Your task to perform on an android device: What's the weather? Image 0: 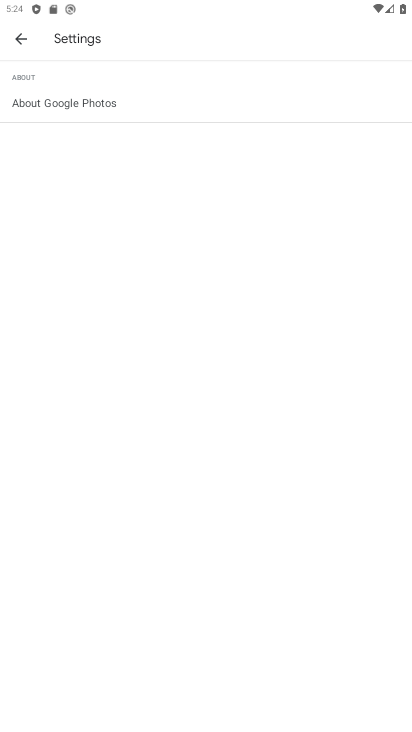
Step 0: press home button
Your task to perform on an android device: What's the weather? Image 1: 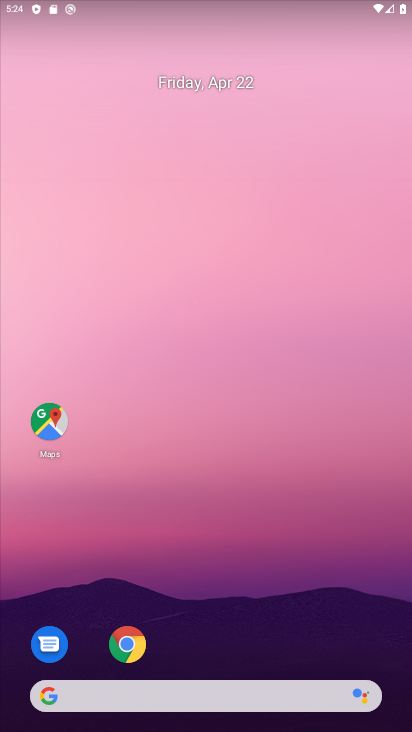
Step 1: drag from (246, 615) to (190, 221)
Your task to perform on an android device: What's the weather? Image 2: 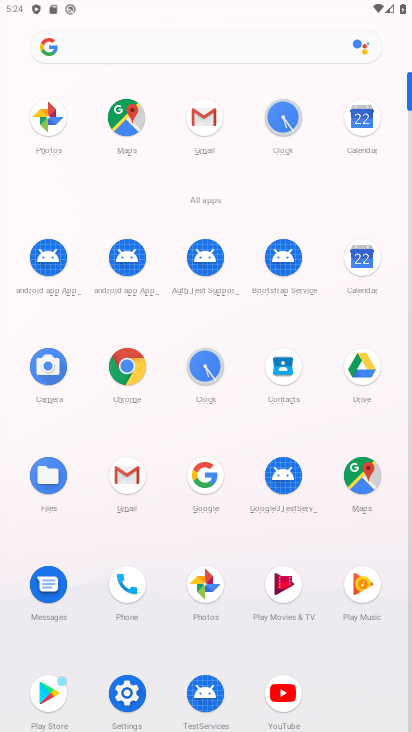
Step 2: click (210, 494)
Your task to perform on an android device: What's the weather? Image 3: 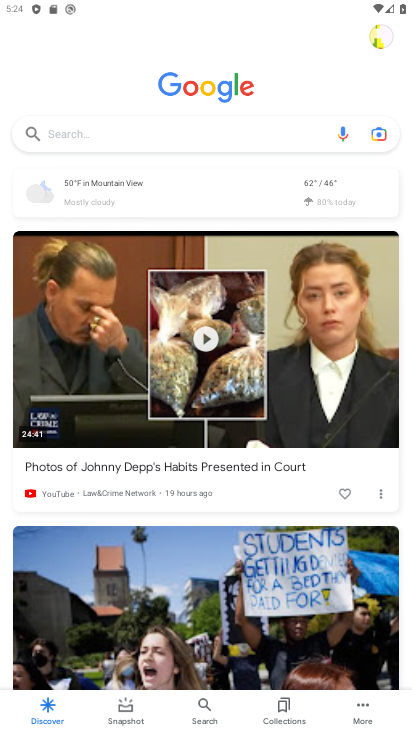
Step 3: click (318, 188)
Your task to perform on an android device: What's the weather? Image 4: 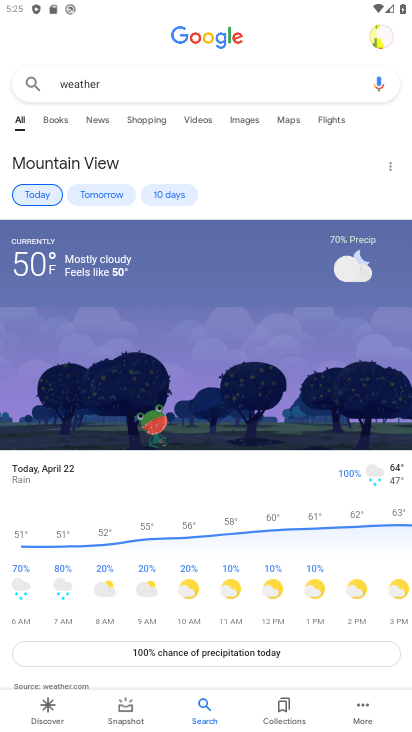
Step 4: task complete